Your task to perform on an android device: open app "Expedia: Hotels, Flights & Car" Image 0: 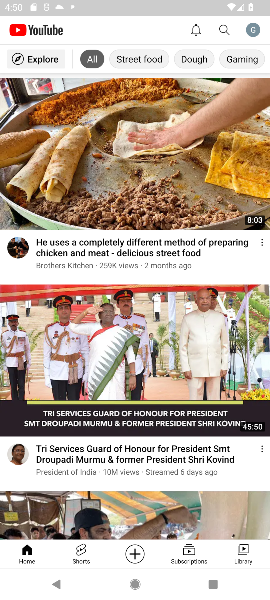
Step 0: press home button
Your task to perform on an android device: open app "Expedia: Hotels, Flights & Car" Image 1: 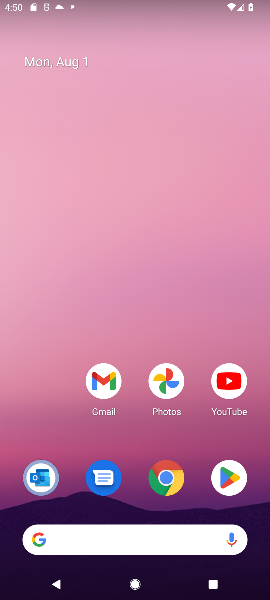
Step 1: click (217, 486)
Your task to perform on an android device: open app "Expedia: Hotels, Flights & Car" Image 2: 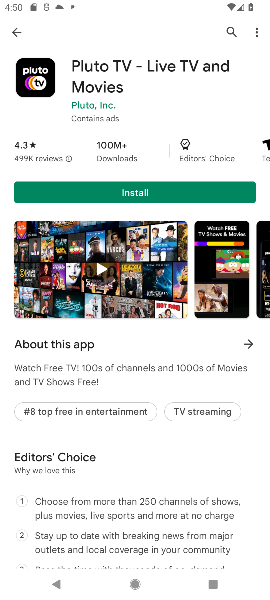
Step 2: click (222, 35)
Your task to perform on an android device: open app "Expedia: Hotels, Flights & Car" Image 3: 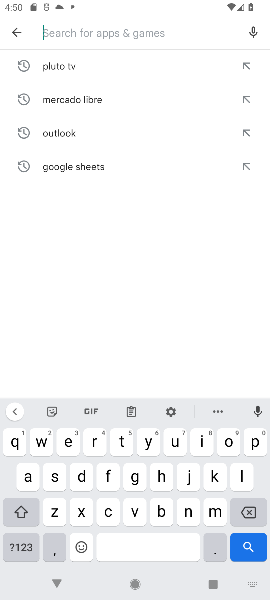
Step 3: click (66, 447)
Your task to perform on an android device: open app "Expedia: Hotels, Flights & Car" Image 4: 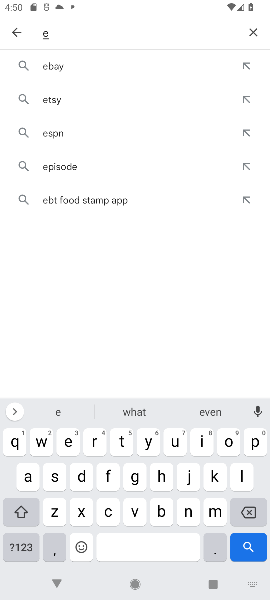
Step 4: click (78, 509)
Your task to perform on an android device: open app "Expedia: Hotels, Flights & Car" Image 5: 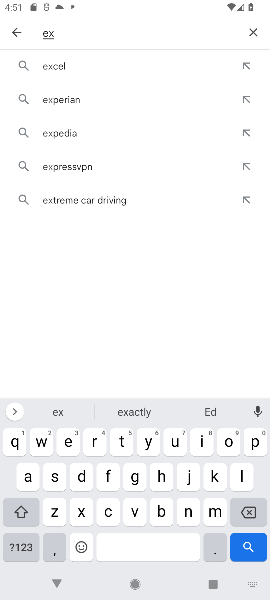
Step 5: click (82, 138)
Your task to perform on an android device: open app "Expedia: Hotels, Flights & Car" Image 6: 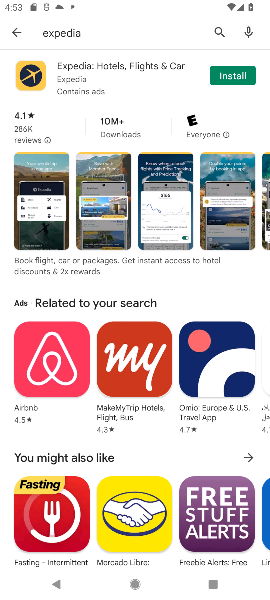
Step 6: task complete